Your task to perform on an android device: Go to Amazon Image 0: 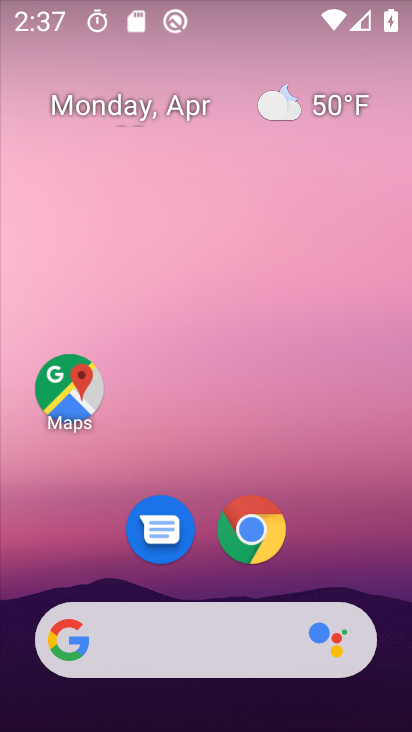
Step 0: click (358, 182)
Your task to perform on an android device: Go to Amazon Image 1: 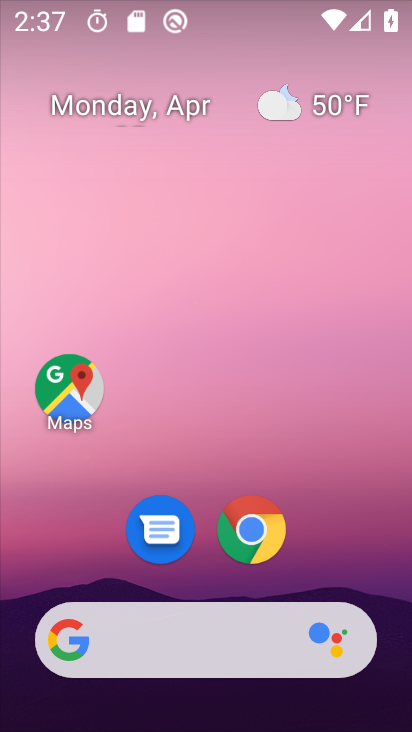
Step 1: drag from (364, 263) to (354, 166)
Your task to perform on an android device: Go to Amazon Image 2: 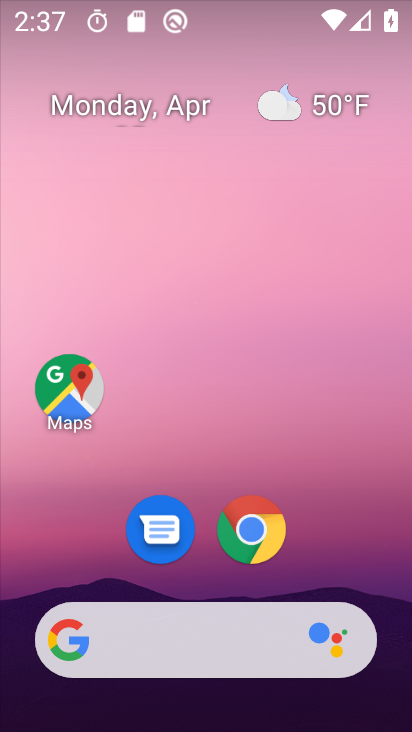
Step 2: drag from (401, 608) to (351, 159)
Your task to perform on an android device: Go to Amazon Image 3: 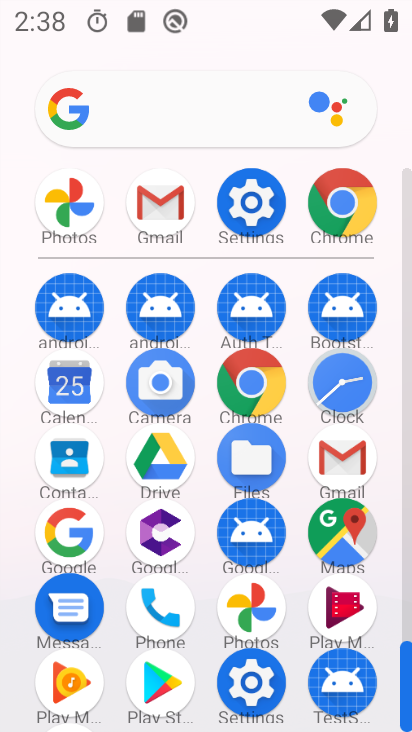
Step 3: click (337, 203)
Your task to perform on an android device: Go to Amazon Image 4: 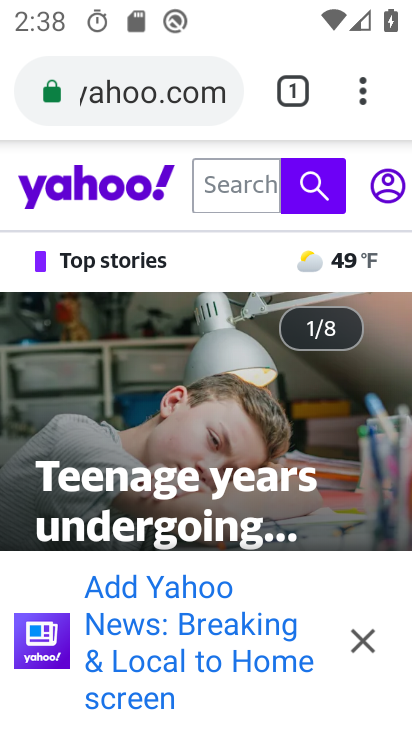
Step 4: click (234, 90)
Your task to perform on an android device: Go to Amazon Image 5: 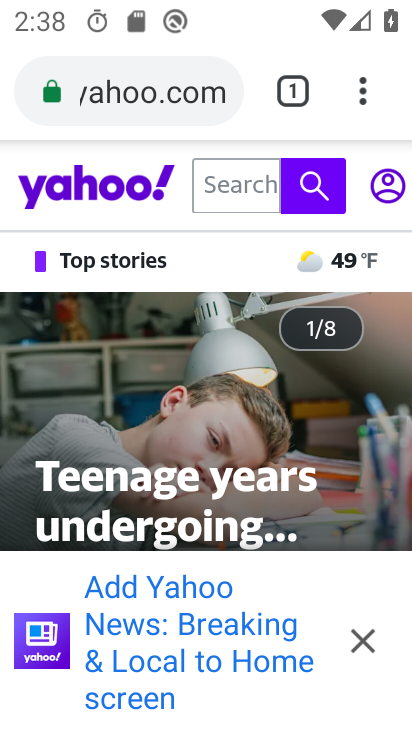
Step 5: click (229, 86)
Your task to perform on an android device: Go to Amazon Image 6: 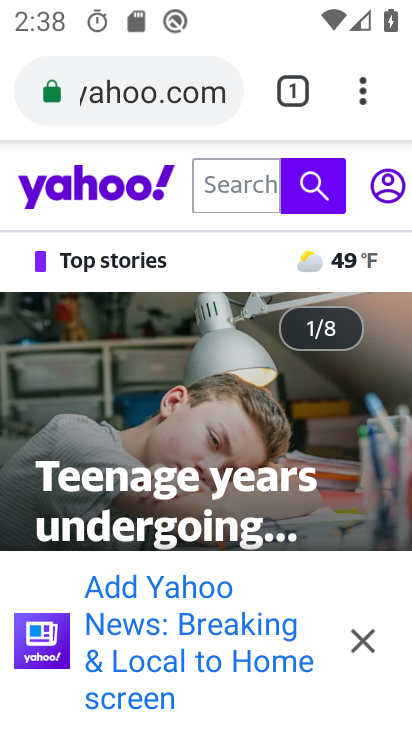
Step 6: type "Amazon"
Your task to perform on an android device: Go to Amazon Image 7: 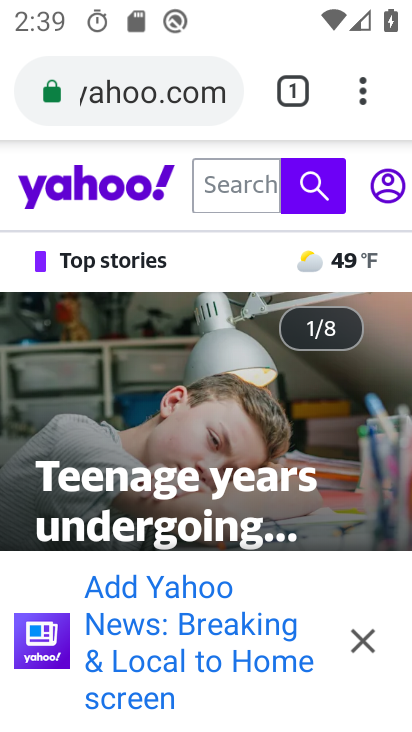
Step 7: click (221, 93)
Your task to perform on an android device: Go to Amazon Image 8: 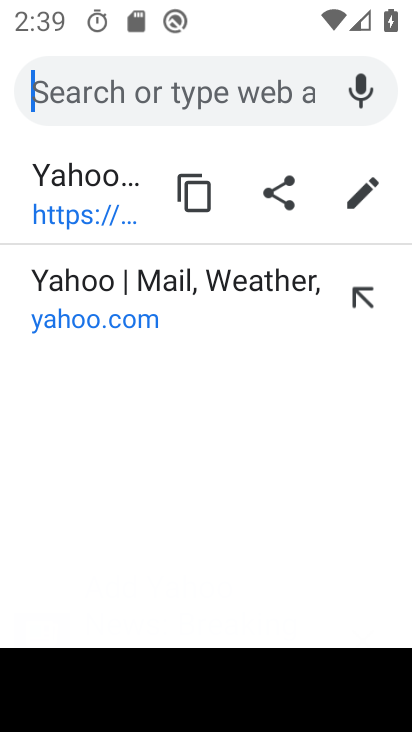
Step 8: type " Amazon"
Your task to perform on an android device: Go to Amazon Image 9: 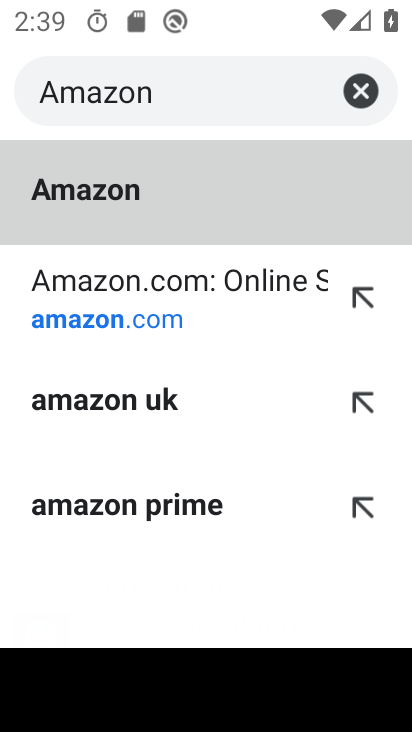
Step 9: click (96, 316)
Your task to perform on an android device: Go to Amazon Image 10: 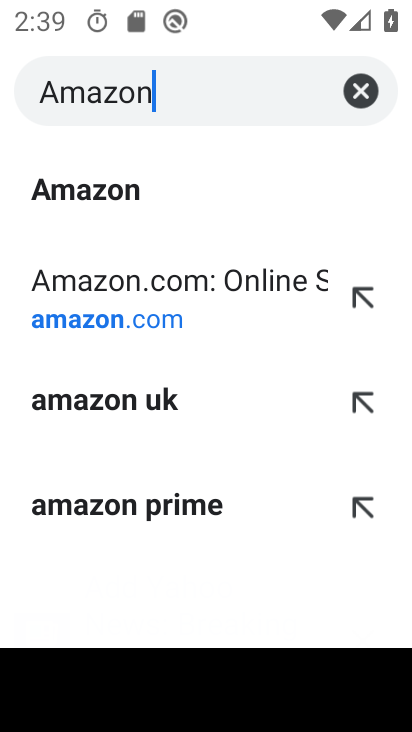
Step 10: click (72, 322)
Your task to perform on an android device: Go to Amazon Image 11: 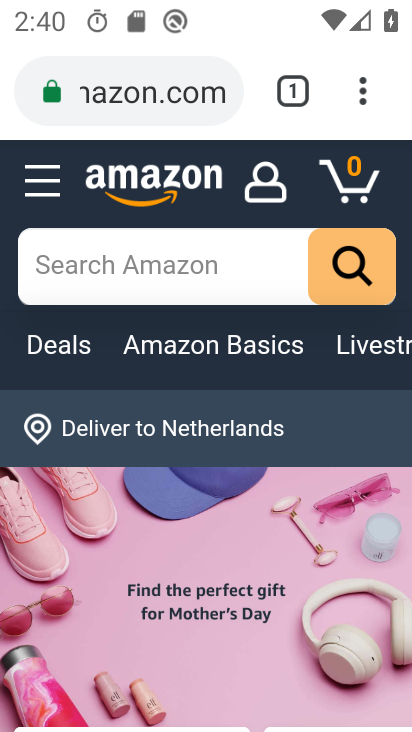
Step 11: task complete